Your task to perform on an android device: turn off javascript in the chrome app Image 0: 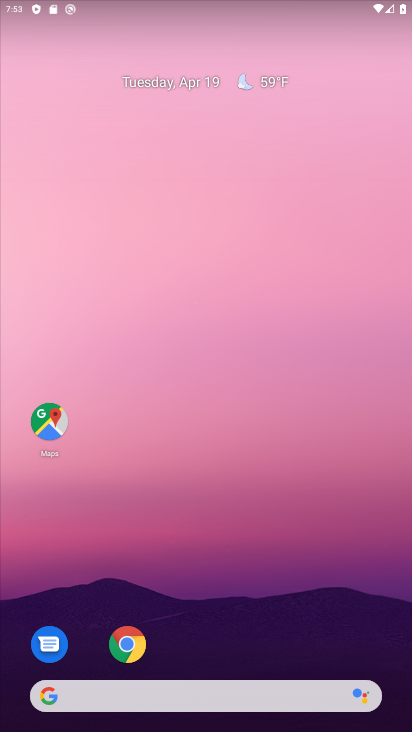
Step 0: click (139, 650)
Your task to perform on an android device: turn off javascript in the chrome app Image 1: 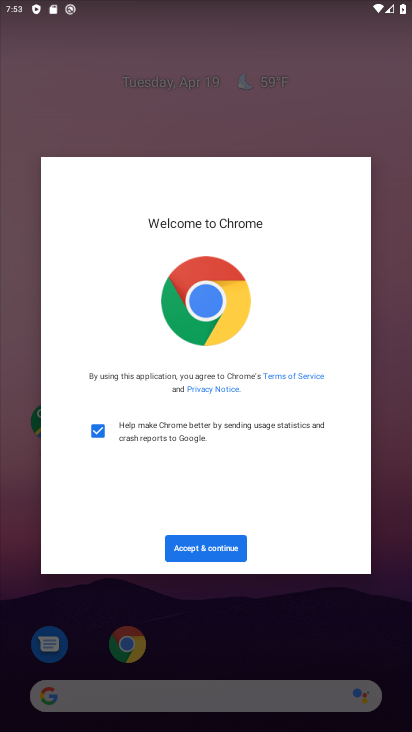
Step 1: click (192, 543)
Your task to perform on an android device: turn off javascript in the chrome app Image 2: 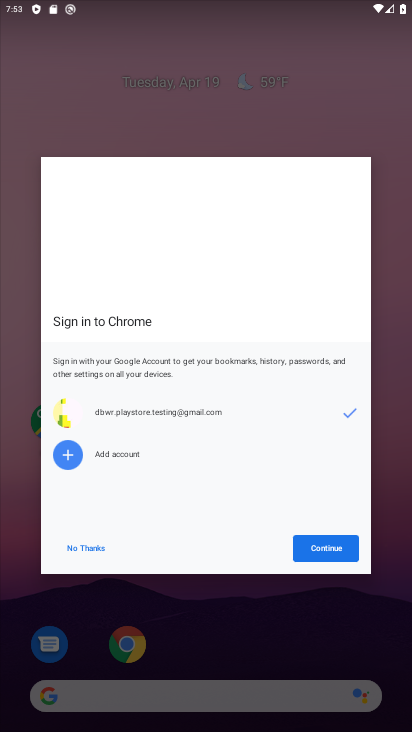
Step 2: click (329, 550)
Your task to perform on an android device: turn off javascript in the chrome app Image 3: 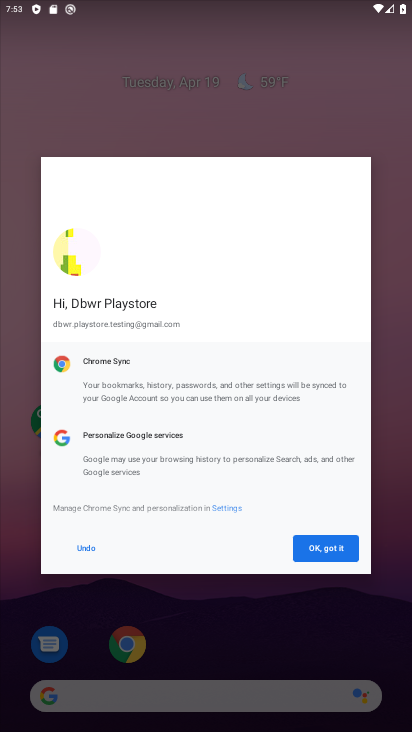
Step 3: click (329, 550)
Your task to perform on an android device: turn off javascript in the chrome app Image 4: 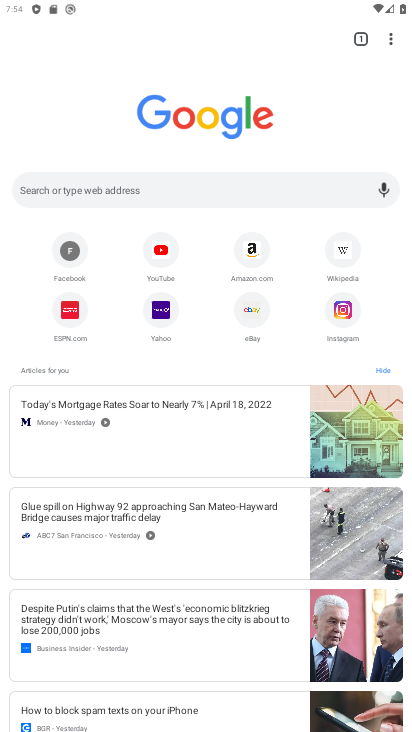
Step 4: drag from (389, 40) to (248, 330)
Your task to perform on an android device: turn off javascript in the chrome app Image 5: 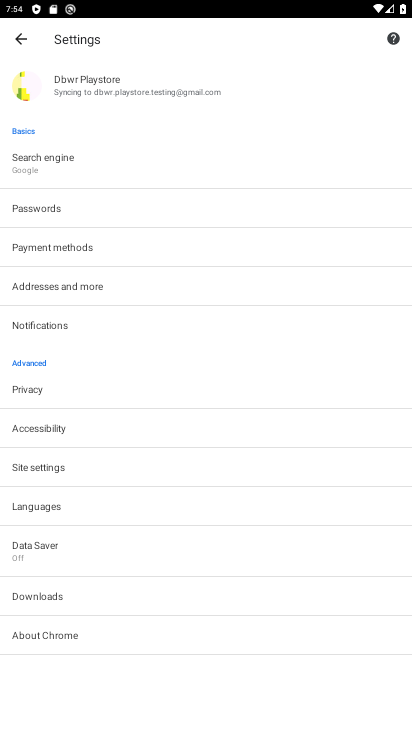
Step 5: click (52, 468)
Your task to perform on an android device: turn off javascript in the chrome app Image 6: 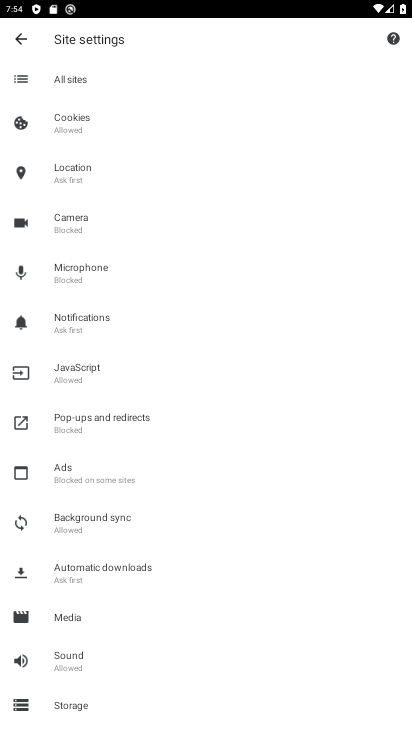
Step 6: click (117, 379)
Your task to perform on an android device: turn off javascript in the chrome app Image 7: 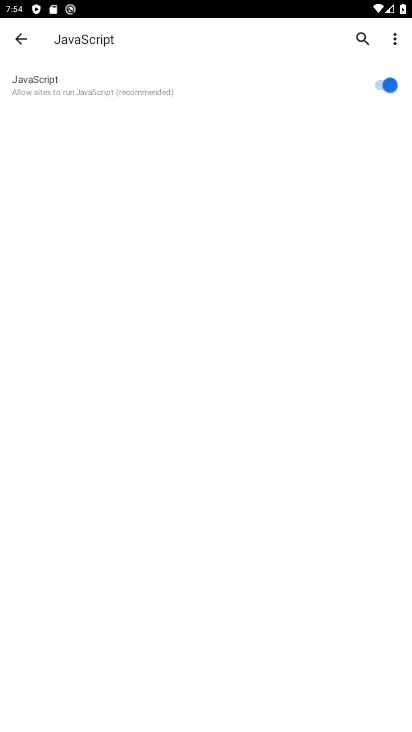
Step 7: task complete